Your task to perform on an android device: What's the weather going to be tomorrow? Image 0: 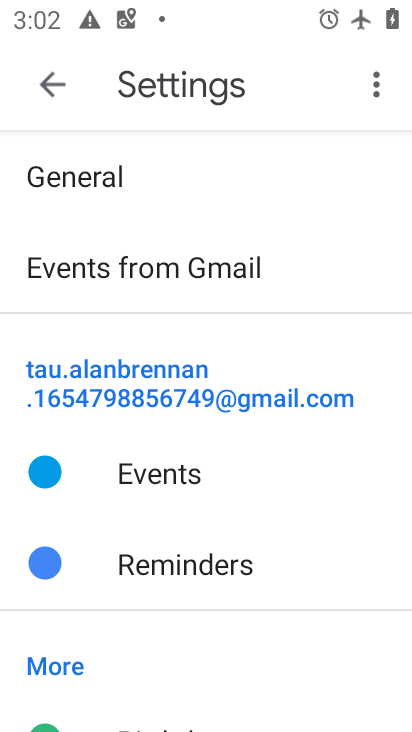
Step 0: press home button
Your task to perform on an android device: What's the weather going to be tomorrow? Image 1: 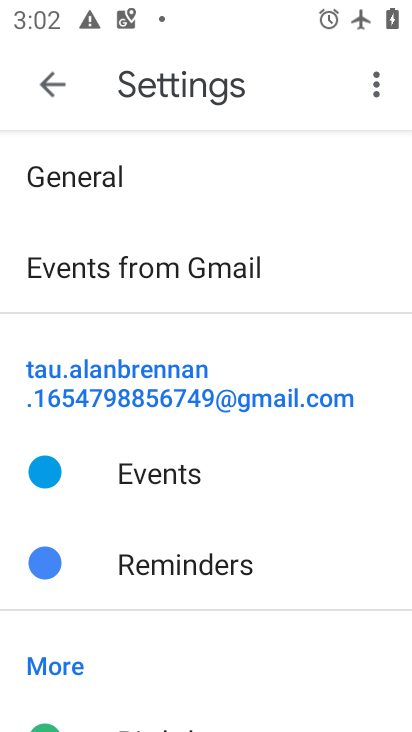
Step 1: press home button
Your task to perform on an android device: What's the weather going to be tomorrow? Image 2: 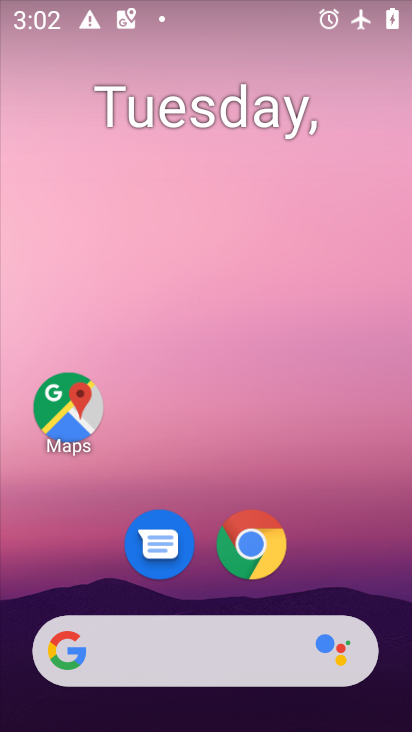
Step 2: drag from (342, 533) to (207, 4)
Your task to perform on an android device: What's the weather going to be tomorrow? Image 3: 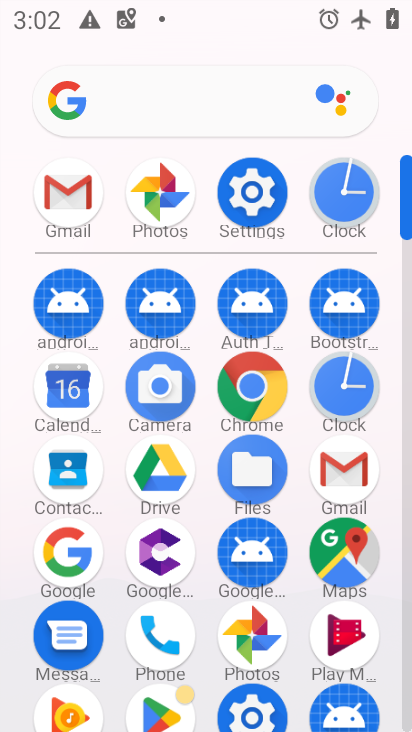
Step 3: click (249, 392)
Your task to perform on an android device: What's the weather going to be tomorrow? Image 4: 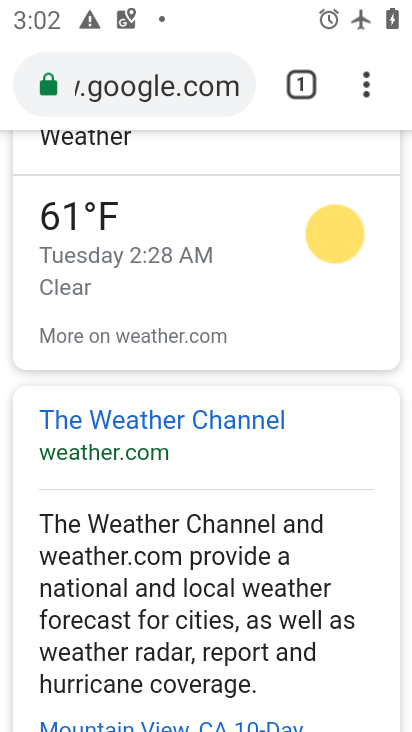
Step 4: click (364, 85)
Your task to perform on an android device: What's the weather going to be tomorrow? Image 5: 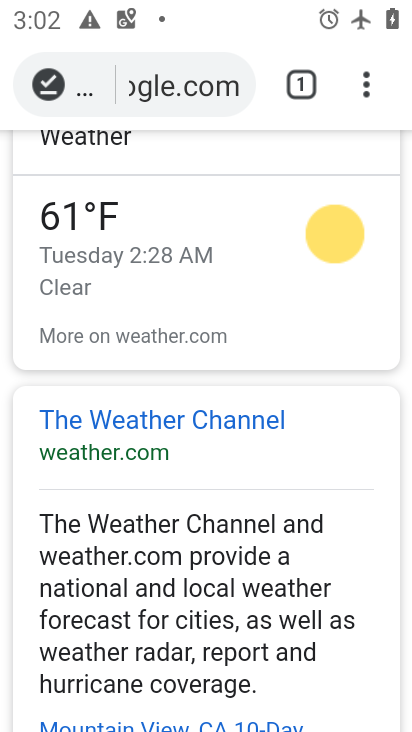
Step 5: drag from (241, 247) to (223, 543)
Your task to perform on an android device: What's the weather going to be tomorrow? Image 6: 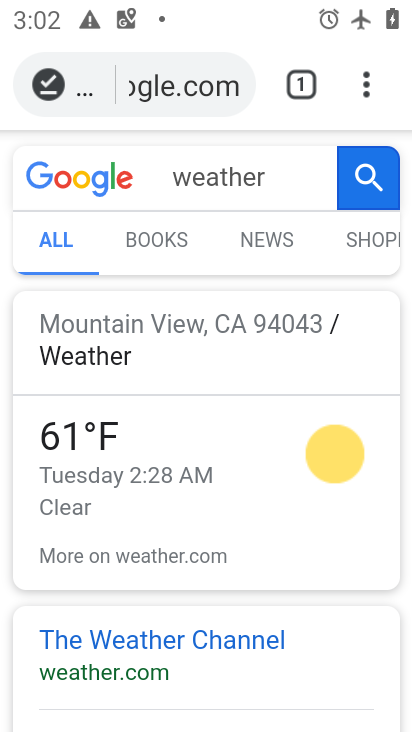
Step 6: click (276, 178)
Your task to perform on an android device: What's the weather going to be tomorrow? Image 7: 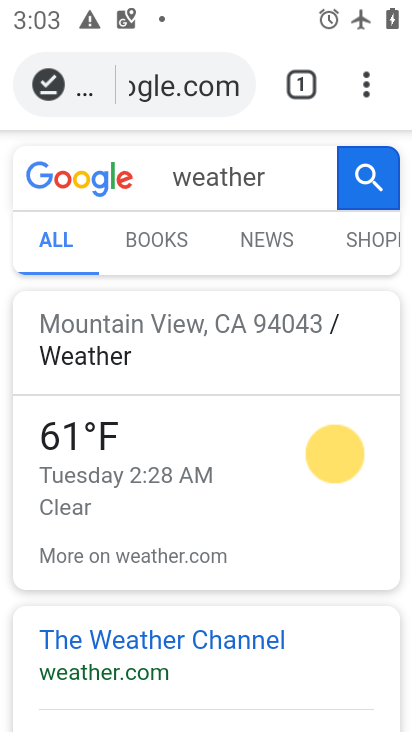
Step 7: type " "
Your task to perform on an android device: What's the weather going to be tomorrow? Image 8: 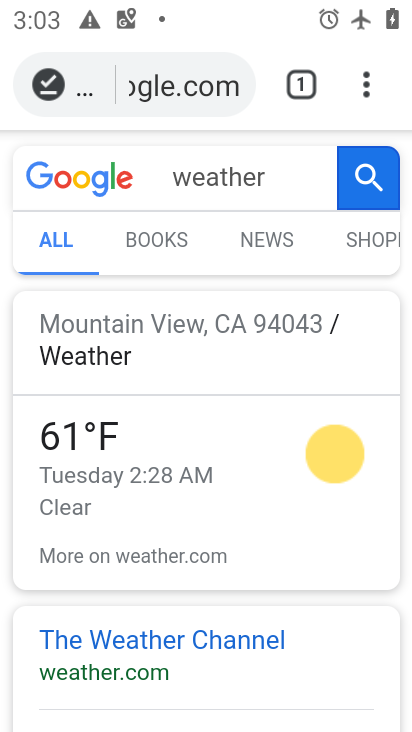
Step 8: click (272, 175)
Your task to perform on an android device: What's the weather going to be tomorrow? Image 9: 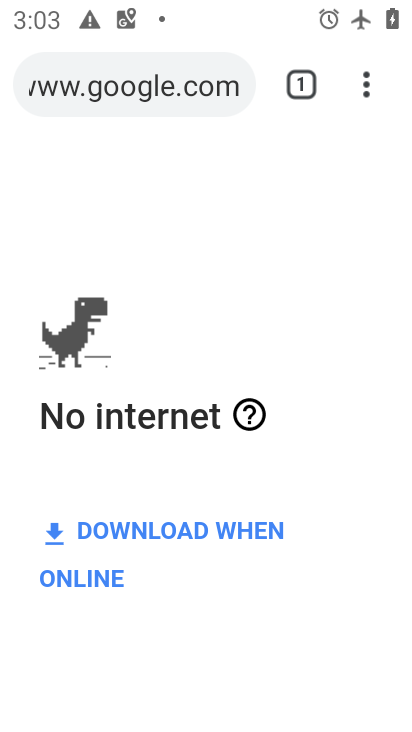
Step 9: press back button
Your task to perform on an android device: What's the weather going to be tomorrow? Image 10: 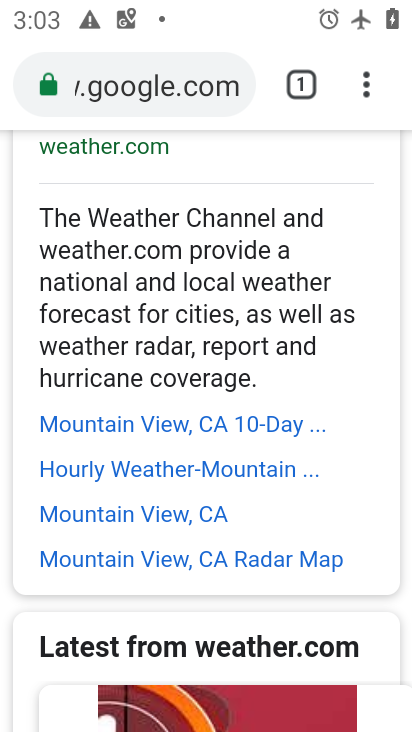
Step 10: click (170, 96)
Your task to perform on an android device: What's the weather going to be tomorrow? Image 11: 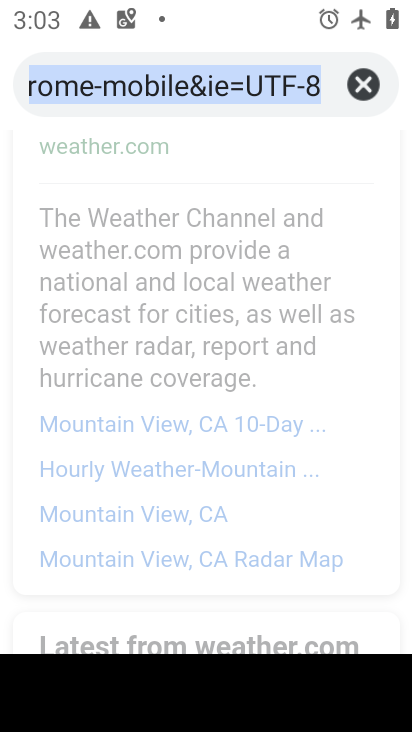
Step 11: type ""
Your task to perform on an android device: What's the weather going to be tomorrow? Image 12: 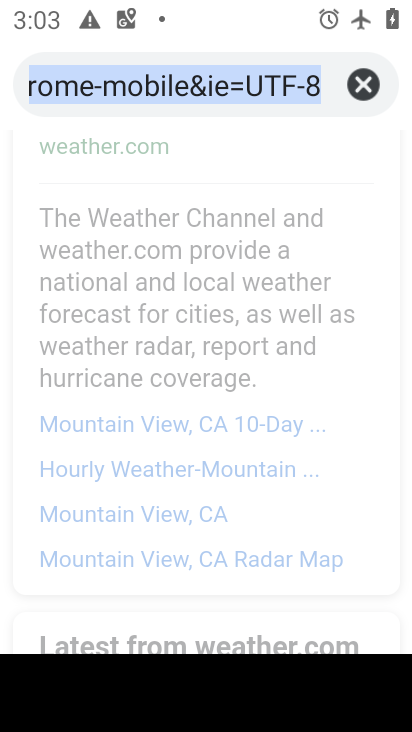
Step 12: press enter
Your task to perform on an android device: What's the weather going to be tomorrow? Image 13: 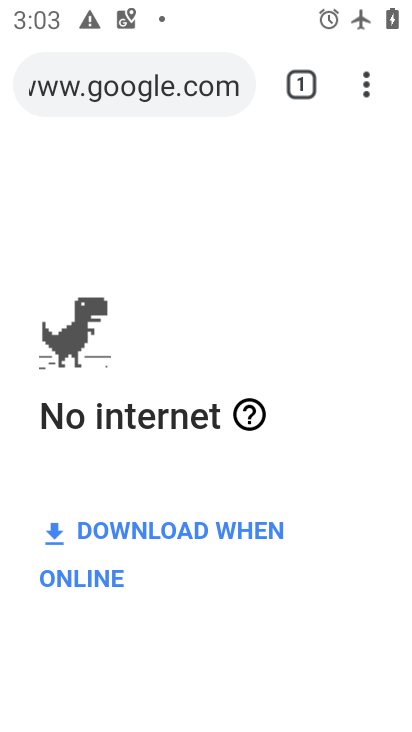
Step 13: task complete